Your task to perform on an android device: turn off picture-in-picture Image 0: 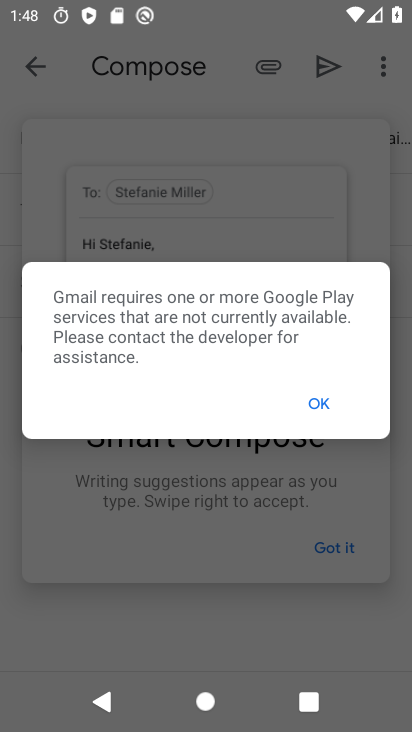
Step 0: press home button
Your task to perform on an android device: turn off picture-in-picture Image 1: 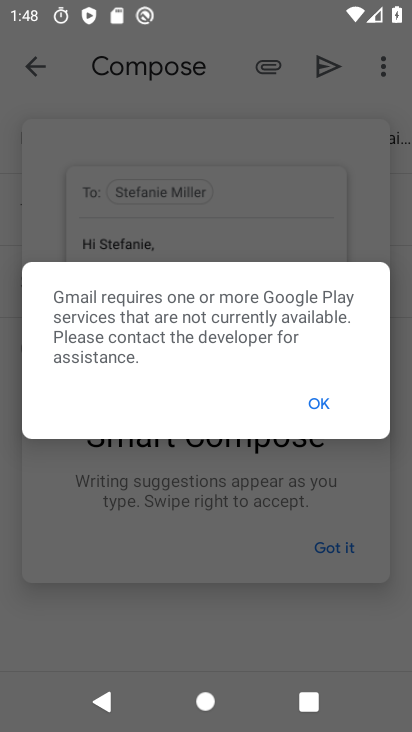
Step 1: press home button
Your task to perform on an android device: turn off picture-in-picture Image 2: 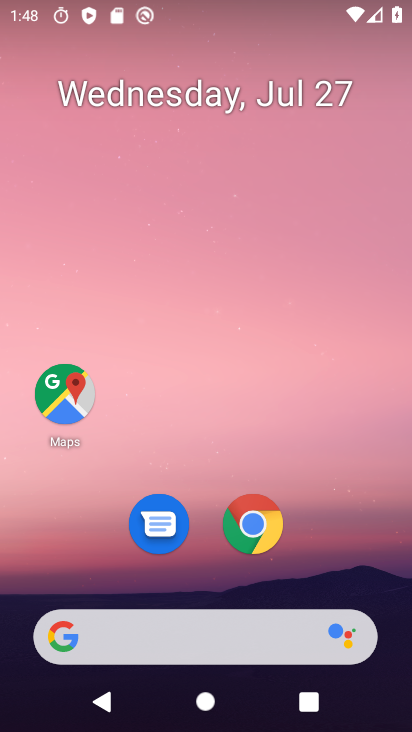
Step 2: click (261, 523)
Your task to perform on an android device: turn off picture-in-picture Image 3: 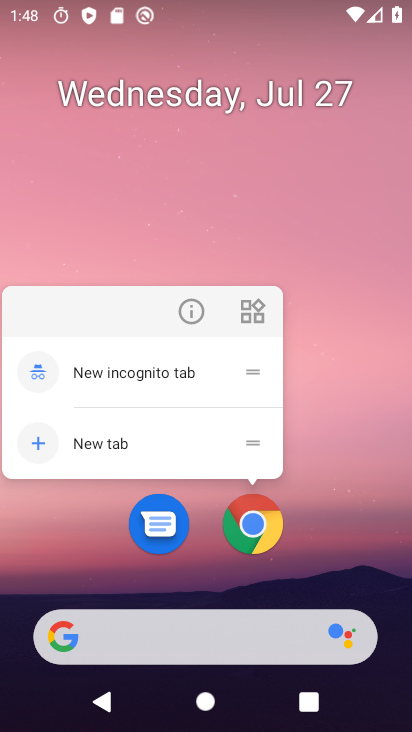
Step 3: click (197, 310)
Your task to perform on an android device: turn off picture-in-picture Image 4: 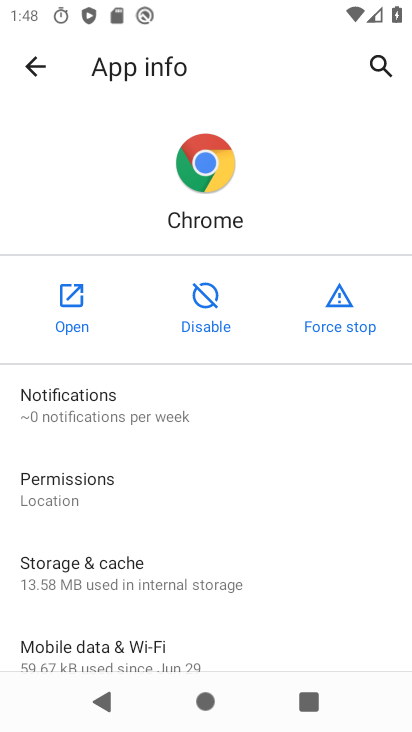
Step 4: drag from (221, 543) to (312, 56)
Your task to perform on an android device: turn off picture-in-picture Image 5: 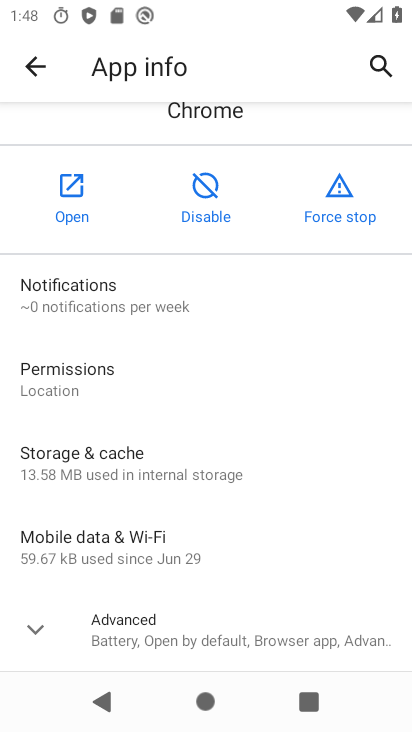
Step 5: click (29, 618)
Your task to perform on an android device: turn off picture-in-picture Image 6: 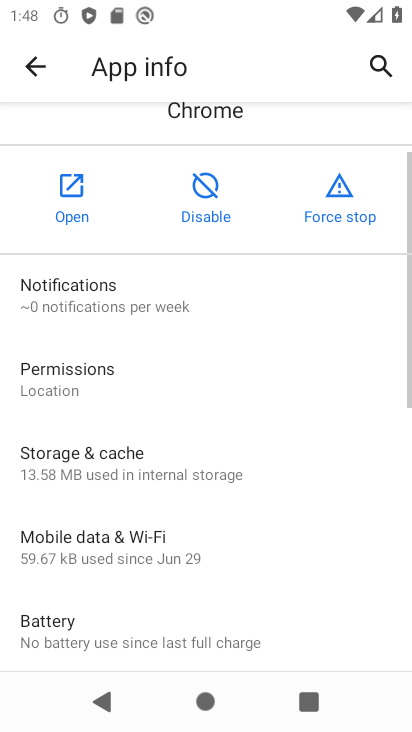
Step 6: drag from (159, 579) to (199, 253)
Your task to perform on an android device: turn off picture-in-picture Image 7: 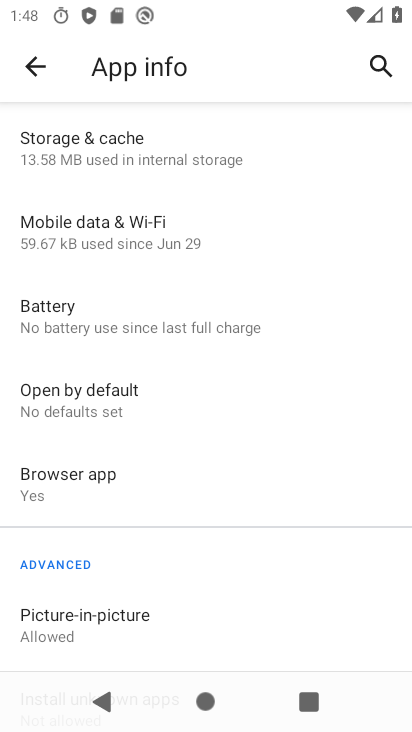
Step 7: drag from (165, 402) to (177, 193)
Your task to perform on an android device: turn off picture-in-picture Image 8: 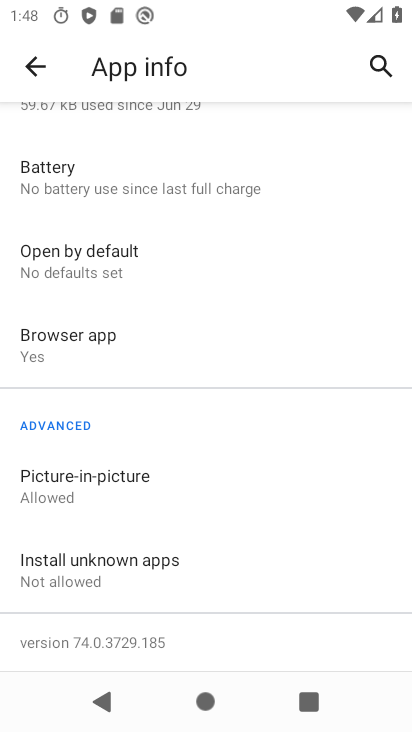
Step 8: click (95, 483)
Your task to perform on an android device: turn off picture-in-picture Image 9: 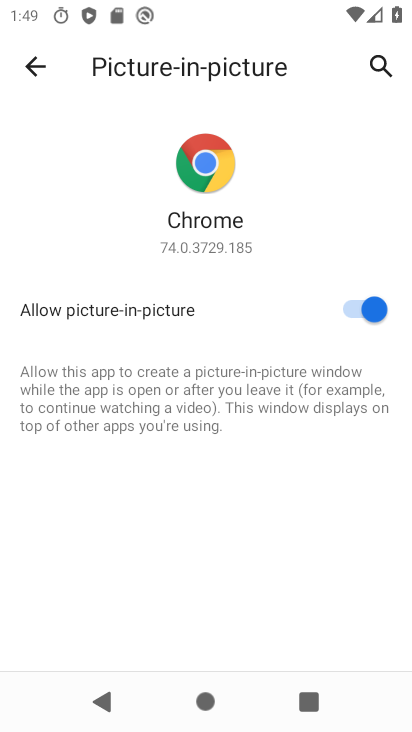
Step 9: click (355, 306)
Your task to perform on an android device: turn off picture-in-picture Image 10: 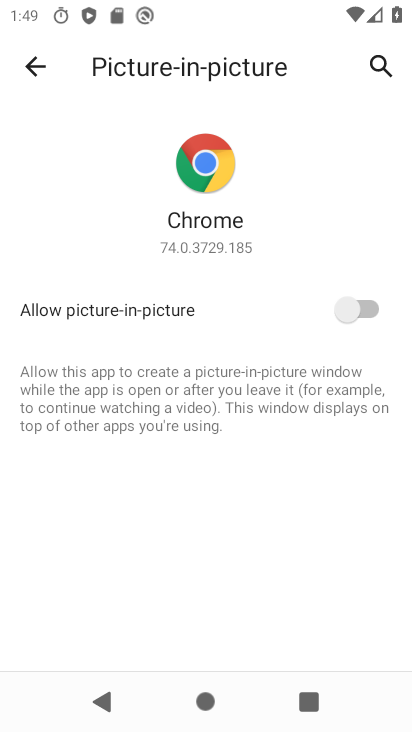
Step 10: task complete